Your task to perform on an android device: move a message to another label in the gmail app Image 0: 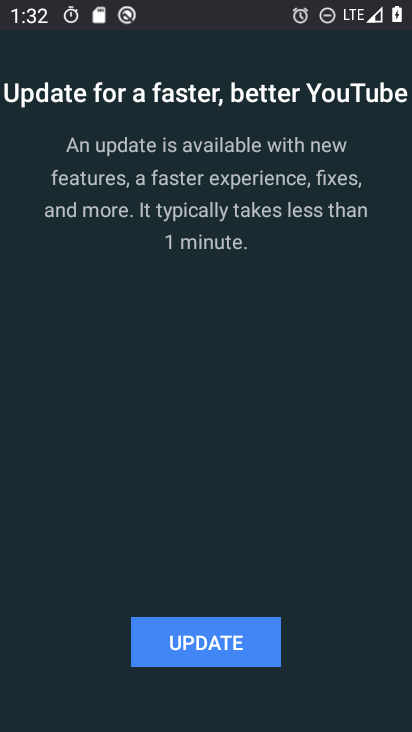
Step 0: press home button
Your task to perform on an android device: move a message to another label in the gmail app Image 1: 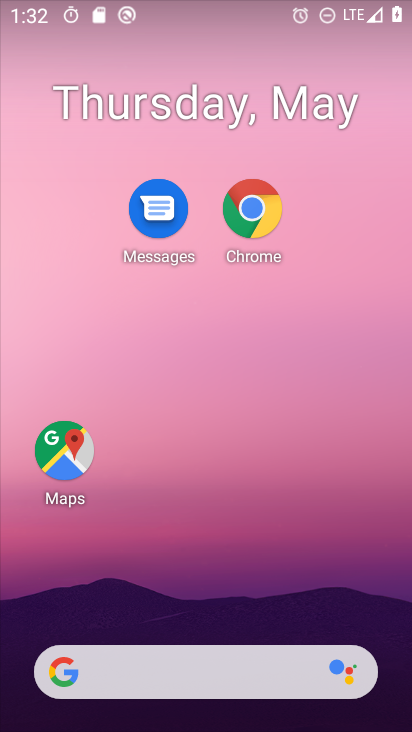
Step 1: drag from (182, 613) to (156, 0)
Your task to perform on an android device: move a message to another label in the gmail app Image 2: 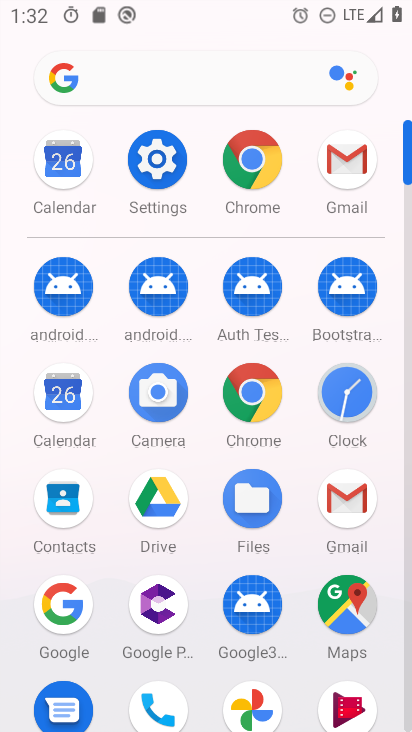
Step 2: click (350, 505)
Your task to perform on an android device: move a message to another label in the gmail app Image 3: 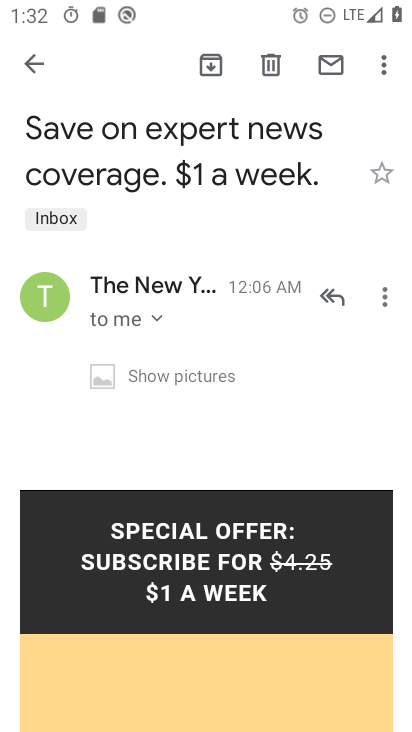
Step 3: click (396, 298)
Your task to perform on an android device: move a message to another label in the gmail app Image 4: 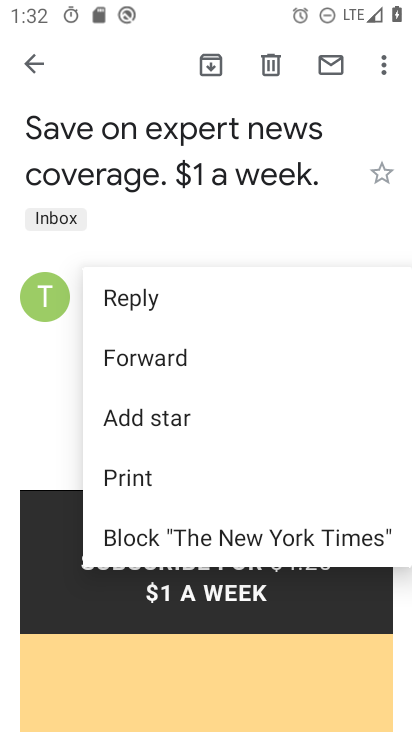
Step 4: click (383, 68)
Your task to perform on an android device: move a message to another label in the gmail app Image 5: 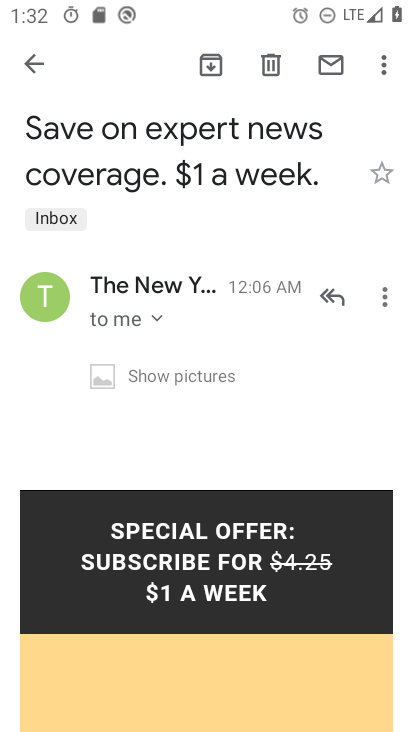
Step 5: click (383, 68)
Your task to perform on an android device: move a message to another label in the gmail app Image 6: 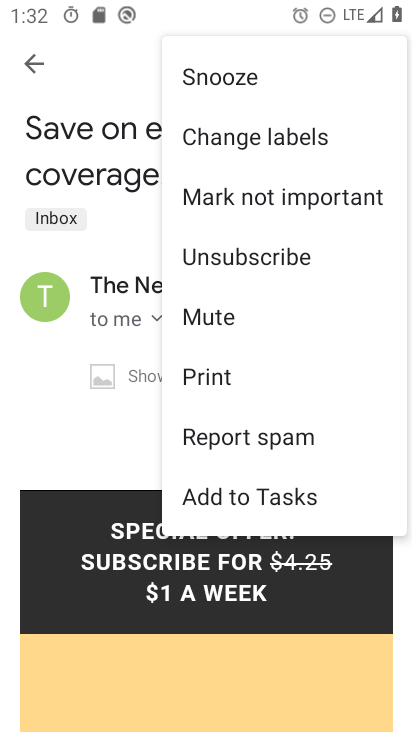
Step 6: click (287, 149)
Your task to perform on an android device: move a message to another label in the gmail app Image 7: 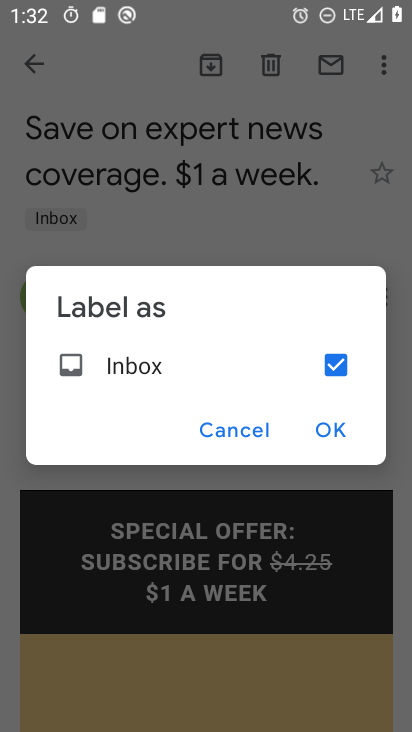
Step 7: click (331, 374)
Your task to perform on an android device: move a message to another label in the gmail app Image 8: 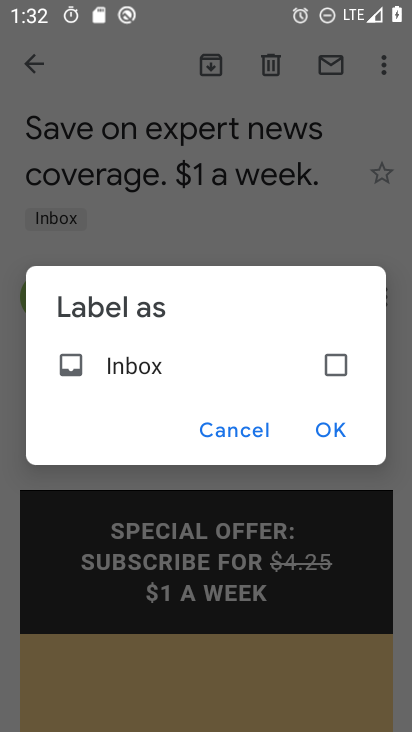
Step 8: click (324, 438)
Your task to perform on an android device: move a message to another label in the gmail app Image 9: 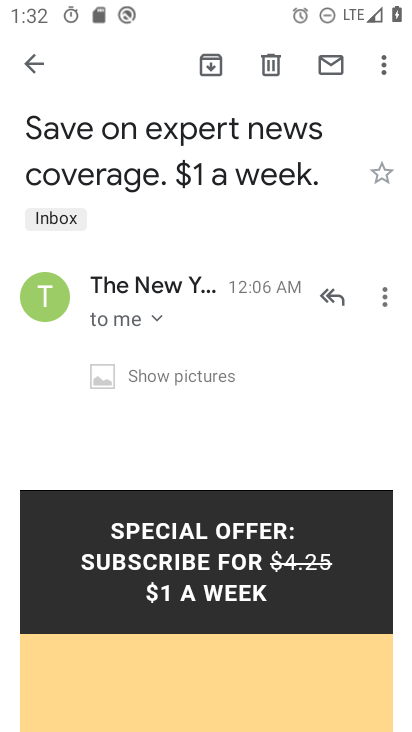
Step 9: task complete